Your task to perform on an android device: What's the weather today? Image 0: 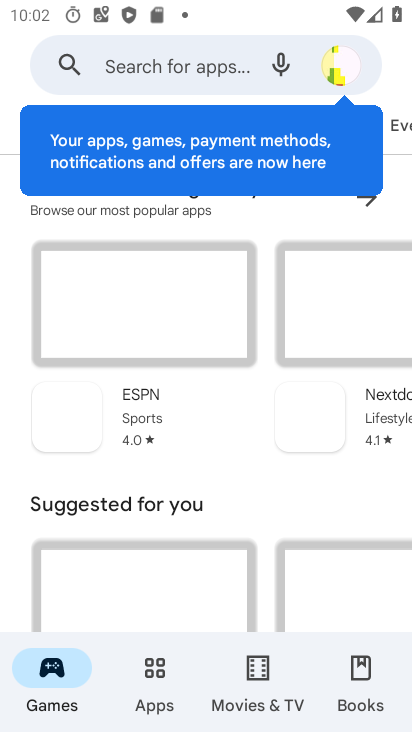
Step 0: press home button
Your task to perform on an android device: What's the weather today? Image 1: 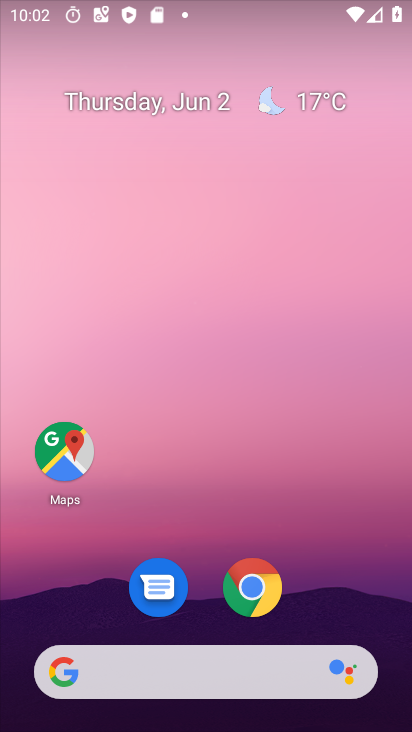
Step 1: click (307, 95)
Your task to perform on an android device: What's the weather today? Image 2: 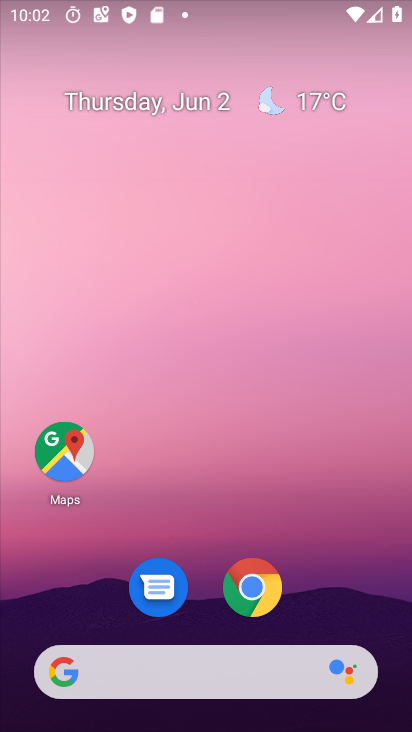
Step 2: click (299, 96)
Your task to perform on an android device: What's the weather today? Image 3: 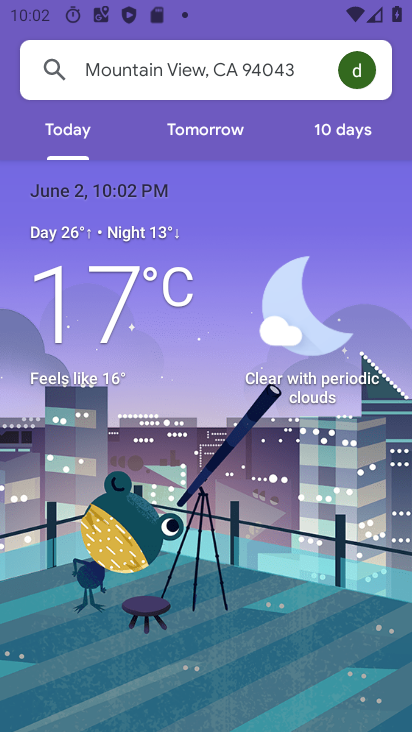
Step 3: task complete